Your task to perform on an android device: Is it going to rain tomorrow? Image 0: 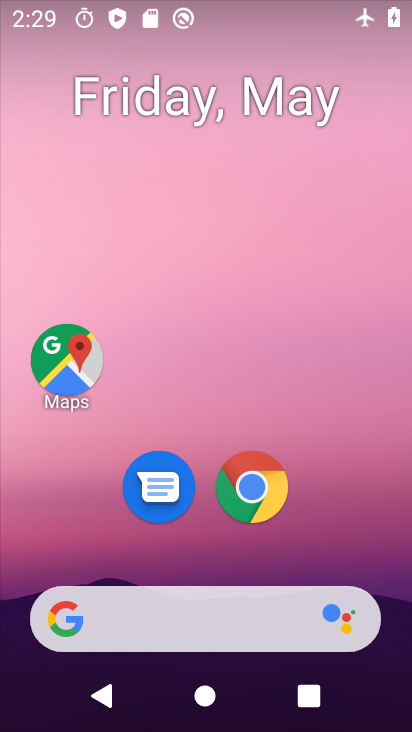
Step 0: drag from (197, 576) to (229, 9)
Your task to perform on an android device: Is it going to rain tomorrow? Image 1: 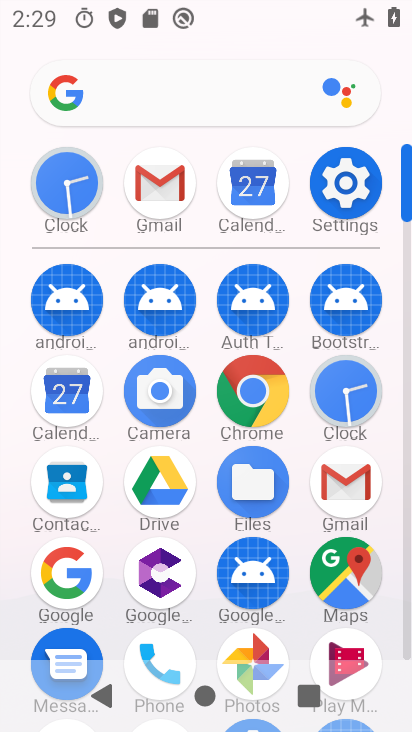
Step 1: click (63, 416)
Your task to perform on an android device: Is it going to rain tomorrow? Image 2: 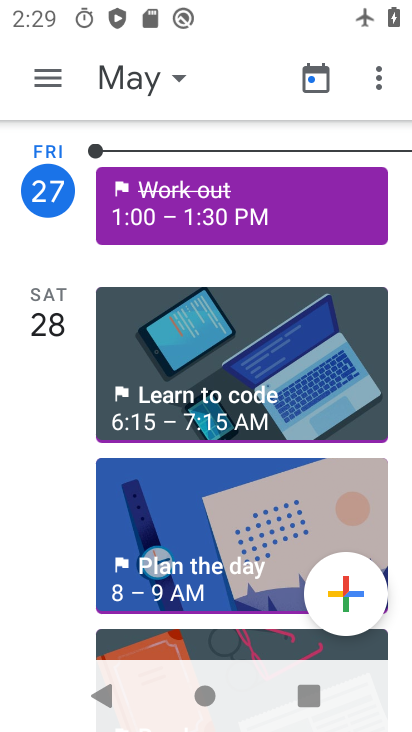
Step 2: press back button
Your task to perform on an android device: Is it going to rain tomorrow? Image 3: 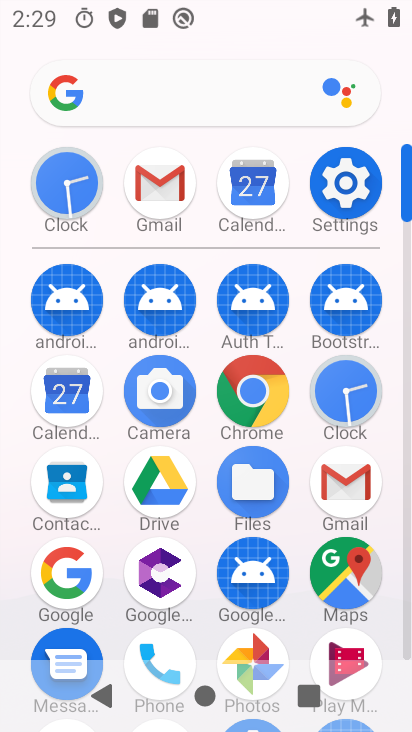
Step 3: click (144, 105)
Your task to perform on an android device: Is it going to rain tomorrow? Image 4: 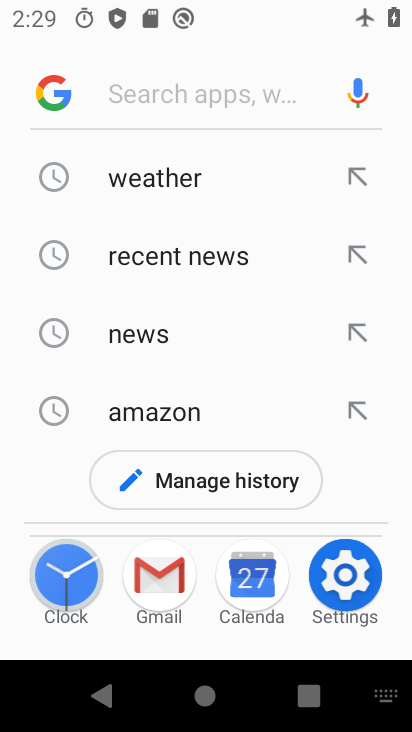
Step 4: click (118, 168)
Your task to perform on an android device: Is it going to rain tomorrow? Image 5: 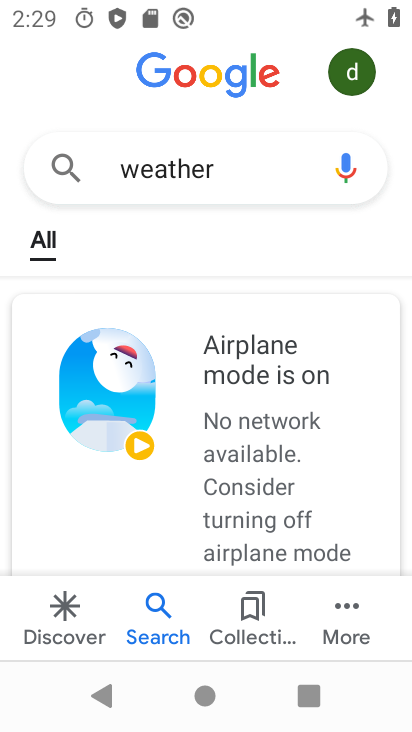
Step 5: drag from (362, 12) to (187, 608)
Your task to perform on an android device: Is it going to rain tomorrow? Image 6: 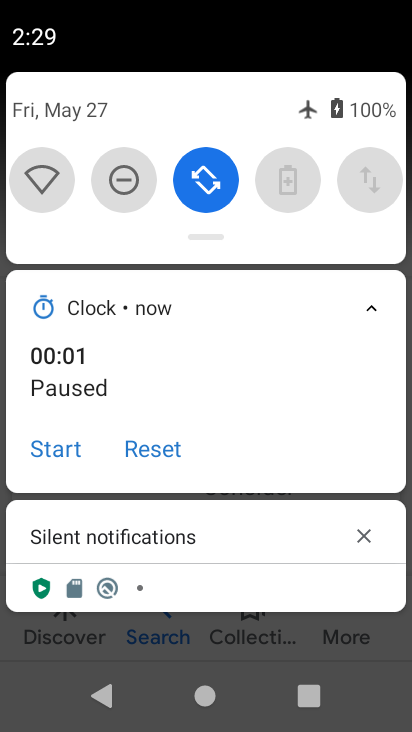
Step 6: drag from (330, 191) to (57, 175)
Your task to perform on an android device: Is it going to rain tomorrow? Image 7: 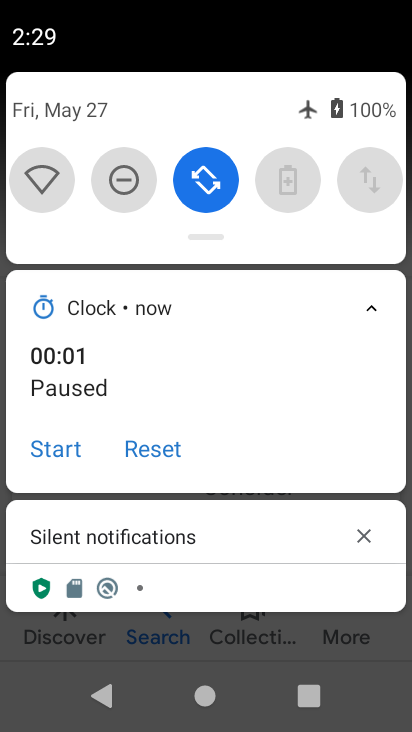
Step 7: drag from (217, 241) to (165, 545)
Your task to perform on an android device: Is it going to rain tomorrow? Image 8: 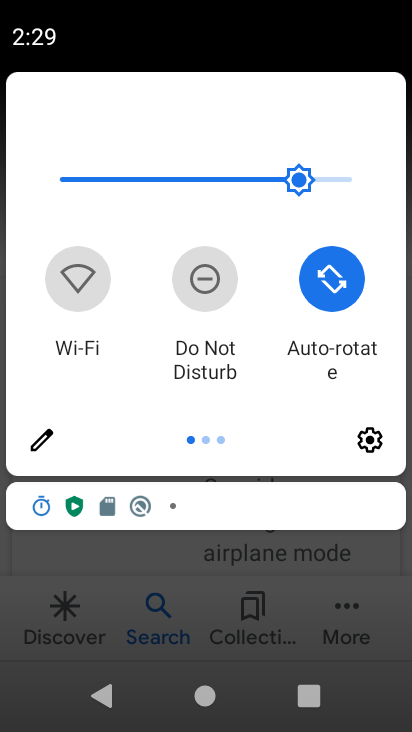
Step 8: drag from (356, 289) to (19, 277)
Your task to perform on an android device: Is it going to rain tomorrow? Image 9: 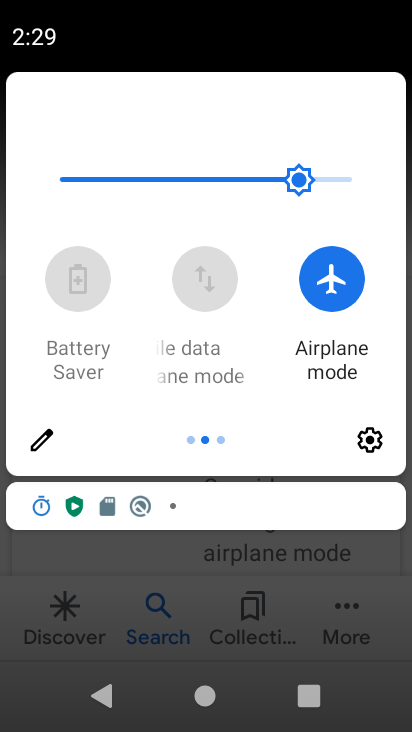
Step 9: click (323, 270)
Your task to perform on an android device: Is it going to rain tomorrow? Image 10: 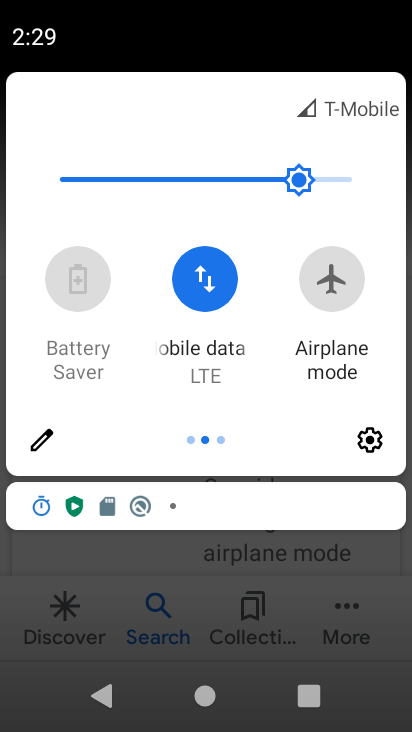
Step 10: click (232, 562)
Your task to perform on an android device: Is it going to rain tomorrow? Image 11: 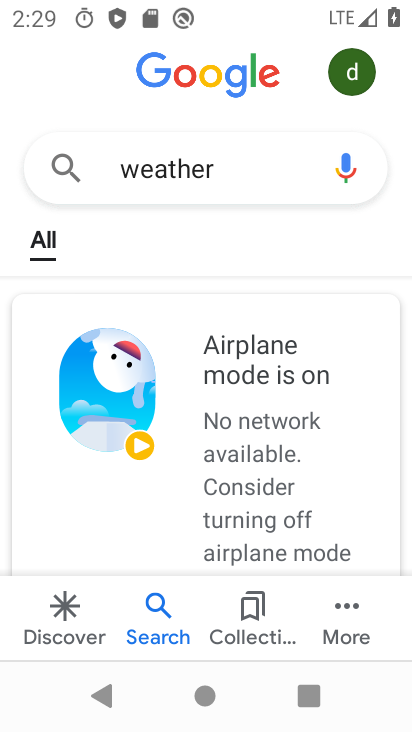
Step 11: drag from (194, 286) to (155, 612)
Your task to perform on an android device: Is it going to rain tomorrow? Image 12: 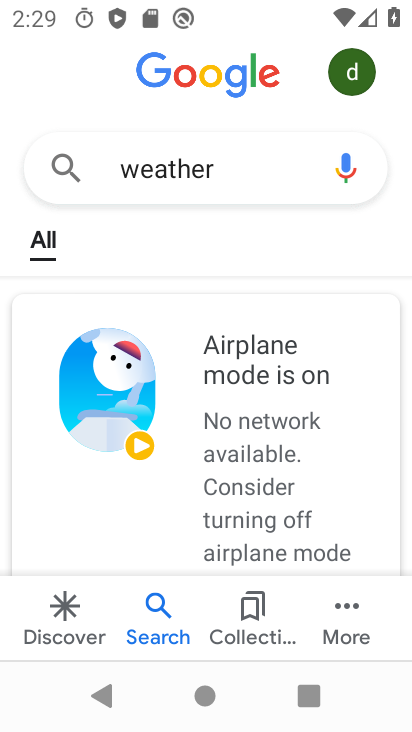
Step 12: drag from (212, 472) to (215, 208)
Your task to perform on an android device: Is it going to rain tomorrow? Image 13: 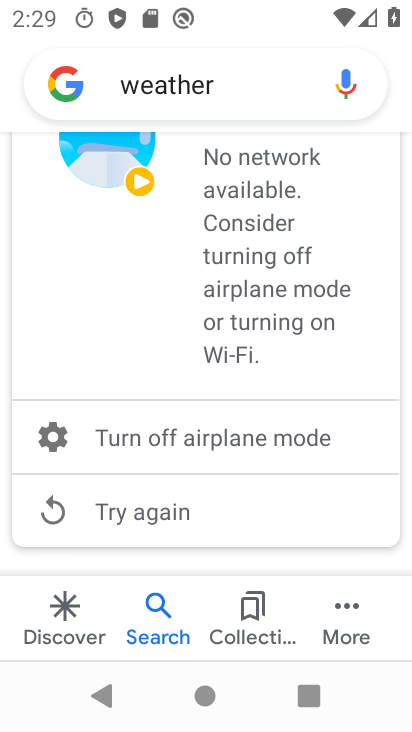
Step 13: click (131, 505)
Your task to perform on an android device: Is it going to rain tomorrow? Image 14: 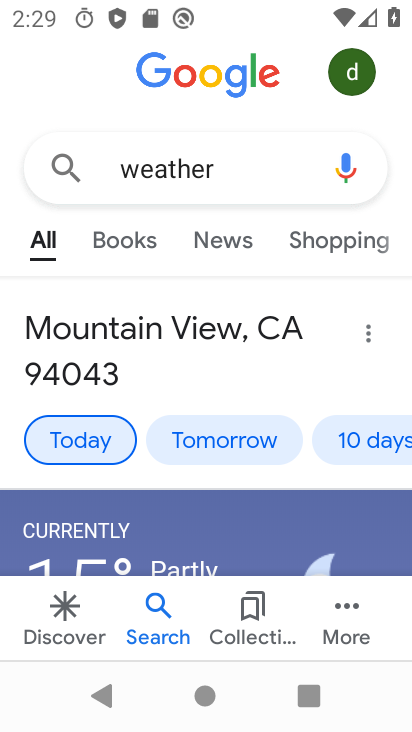
Step 14: click (212, 454)
Your task to perform on an android device: Is it going to rain tomorrow? Image 15: 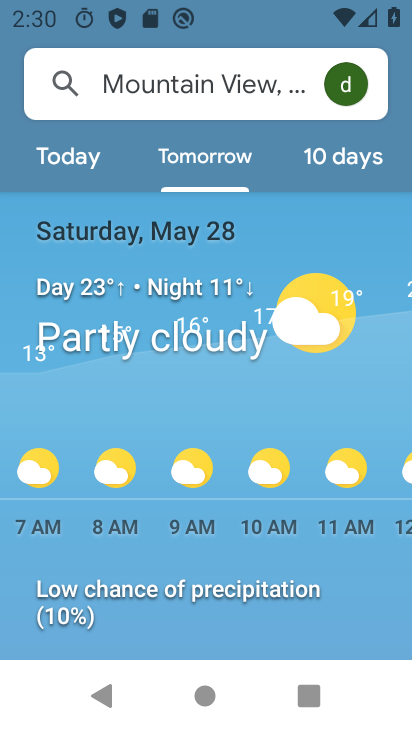
Step 15: task complete